Your task to perform on an android device: How much does a 3 bedroom apartment rent for in Austin? Image 0: 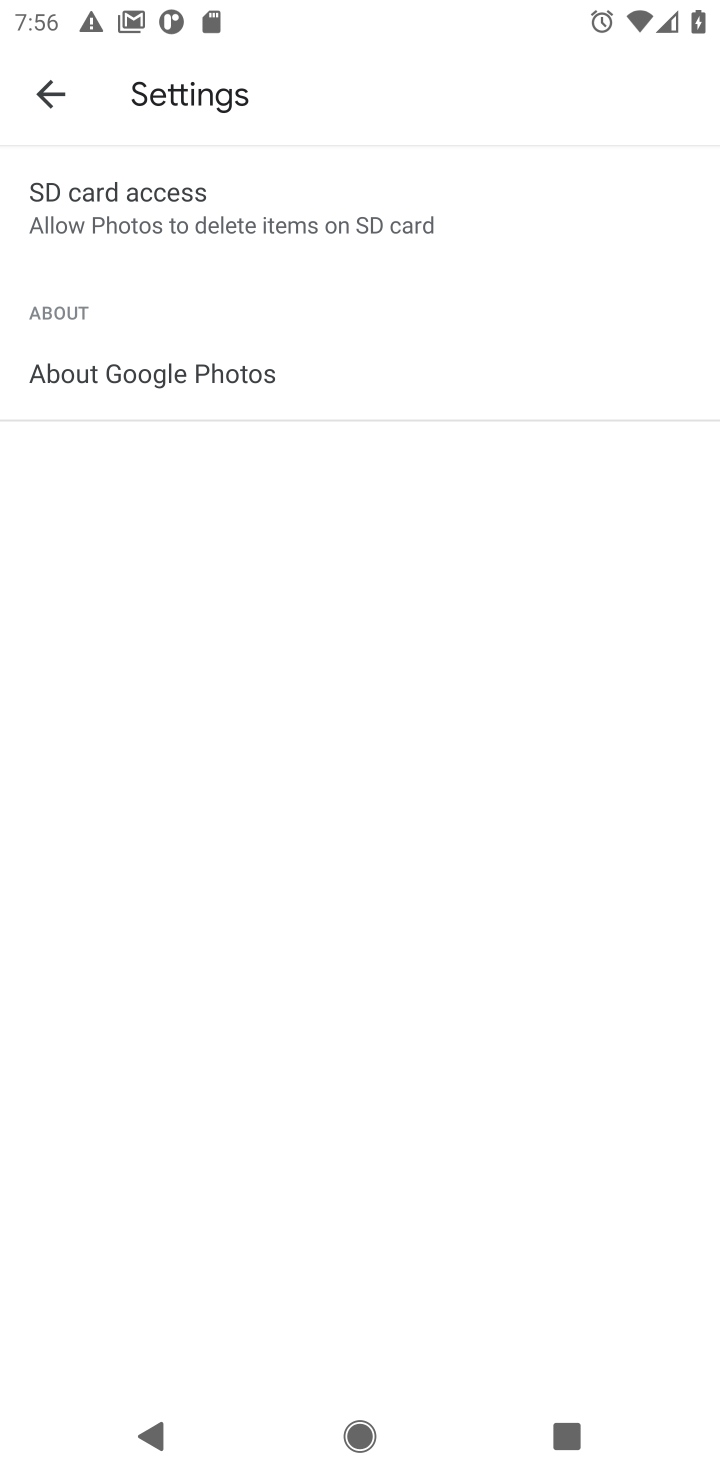
Step 0: press home button
Your task to perform on an android device: How much does a 3 bedroom apartment rent for in Austin? Image 1: 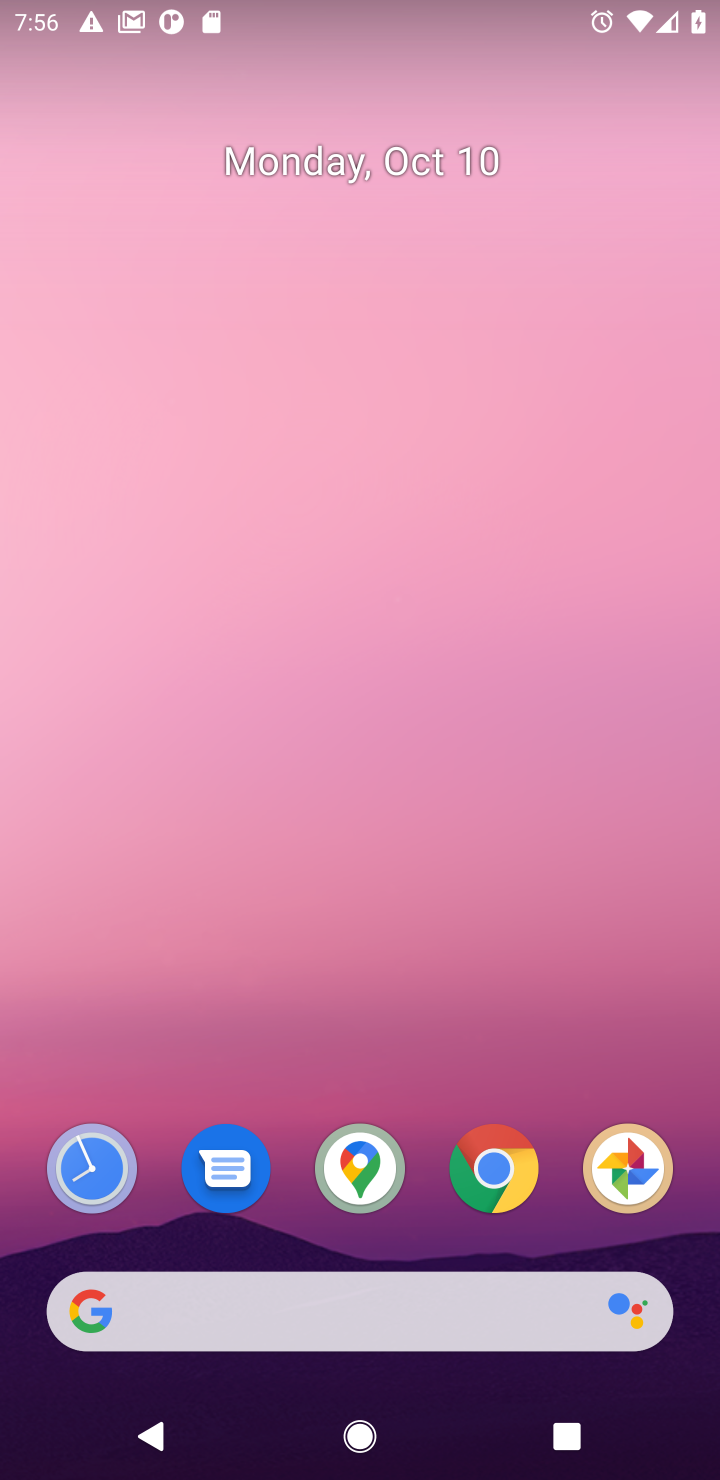
Step 1: click (492, 1177)
Your task to perform on an android device: How much does a 3 bedroom apartment rent for in Austin? Image 2: 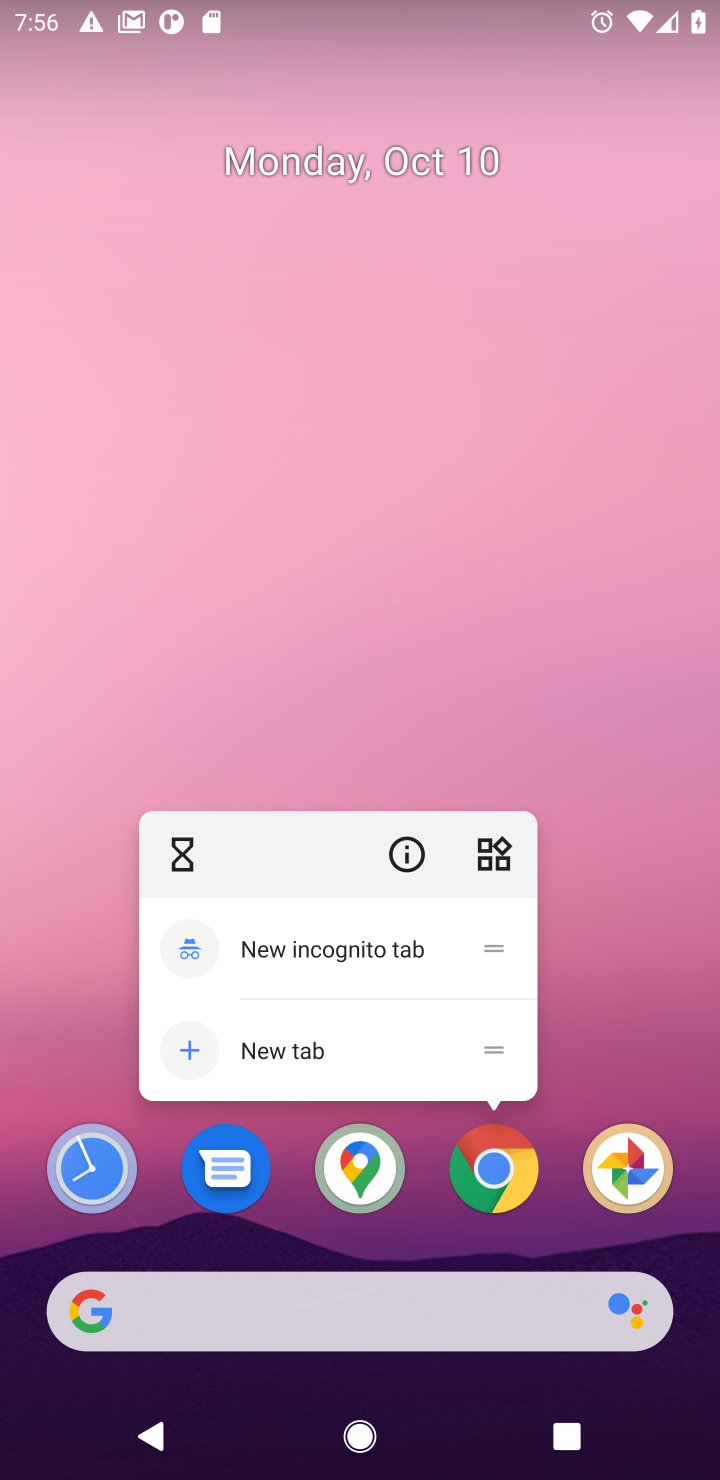
Step 2: click (492, 1177)
Your task to perform on an android device: How much does a 3 bedroom apartment rent for in Austin? Image 3: 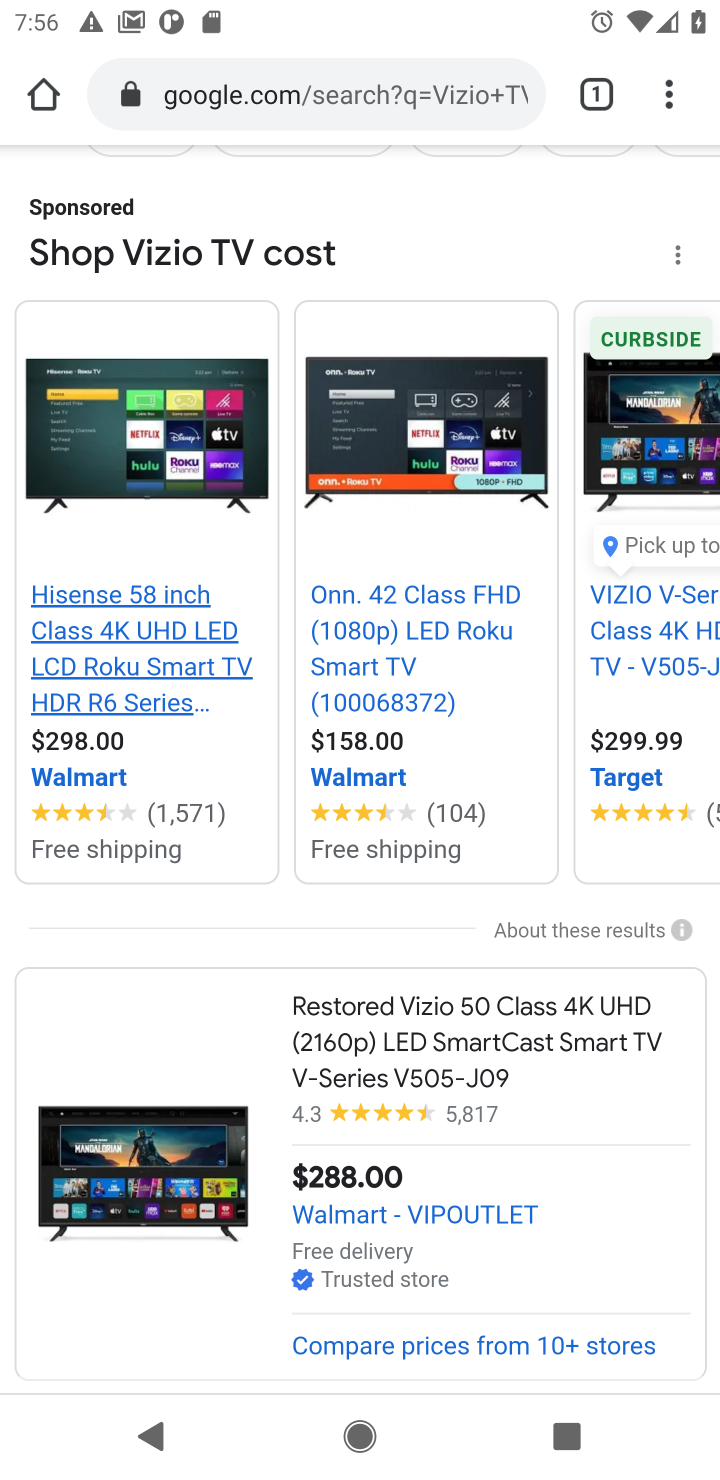
Step 3: click (326, 96)
Your task to perform on an android device: How much does a 3 bedroom apartment rent for in Austin? Image 4: 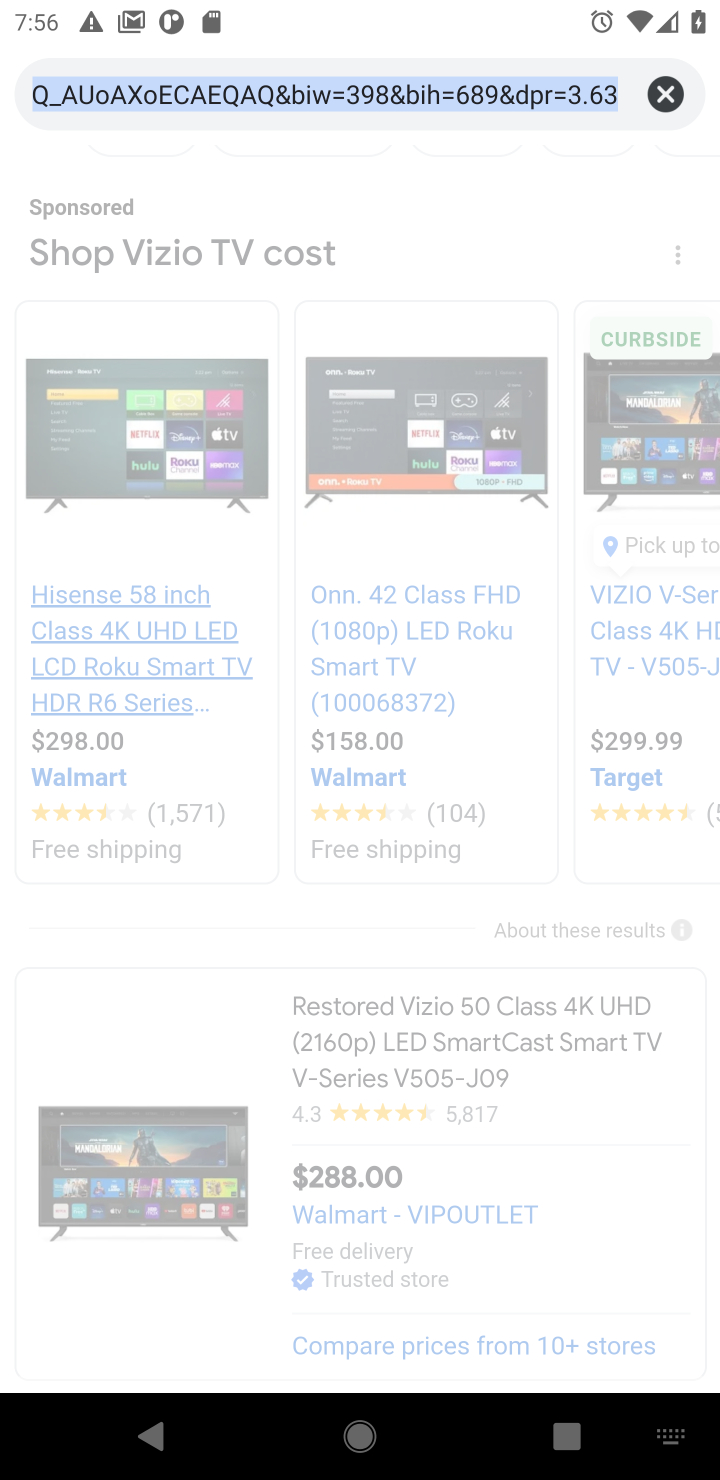
Step 4: click (652, 92)
Your task to perform on an android device: How much does a 3 bedroom apartment rent for in Austin? Image 5: 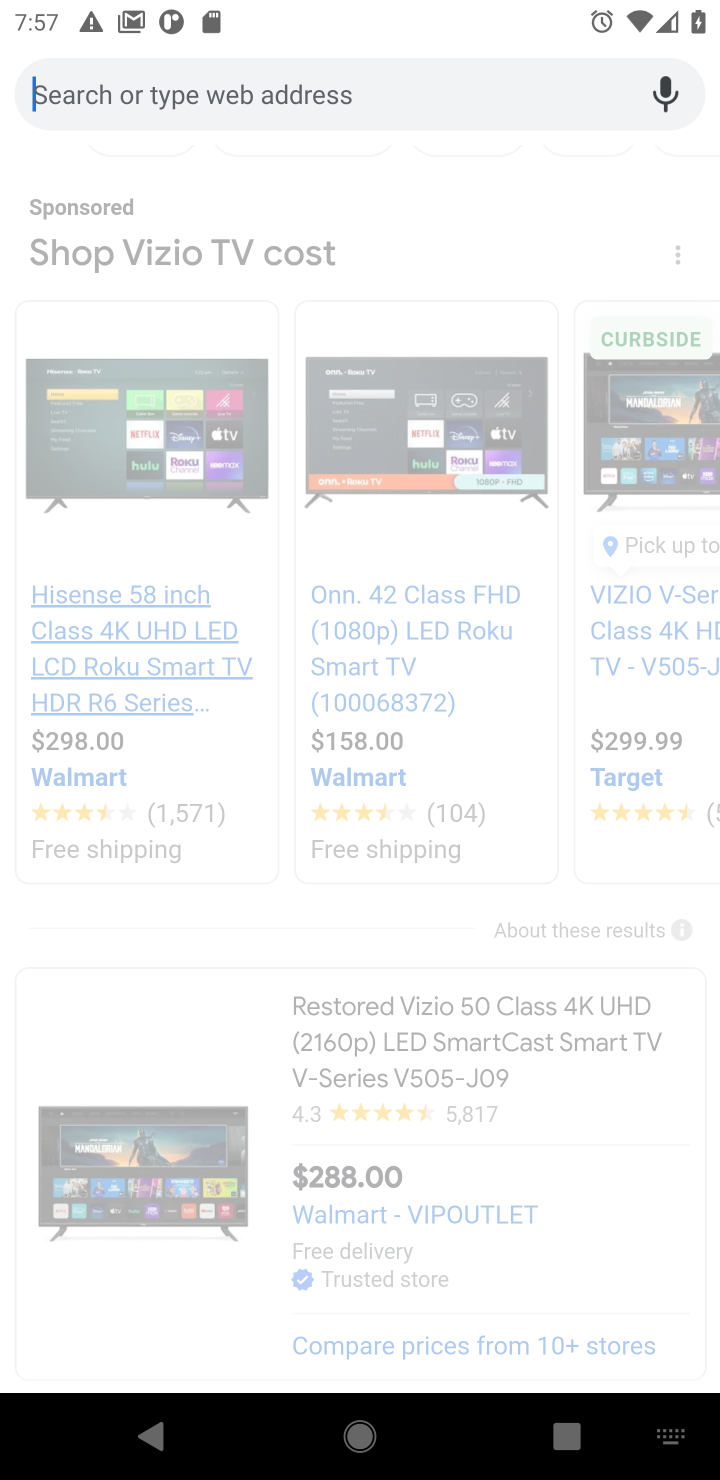
Step 5: type "rent for 3 bedroom apartment in austin"
Your task to perform on an android device: How much does a 3 bedroom apartment rent for in Austin? Image 6: 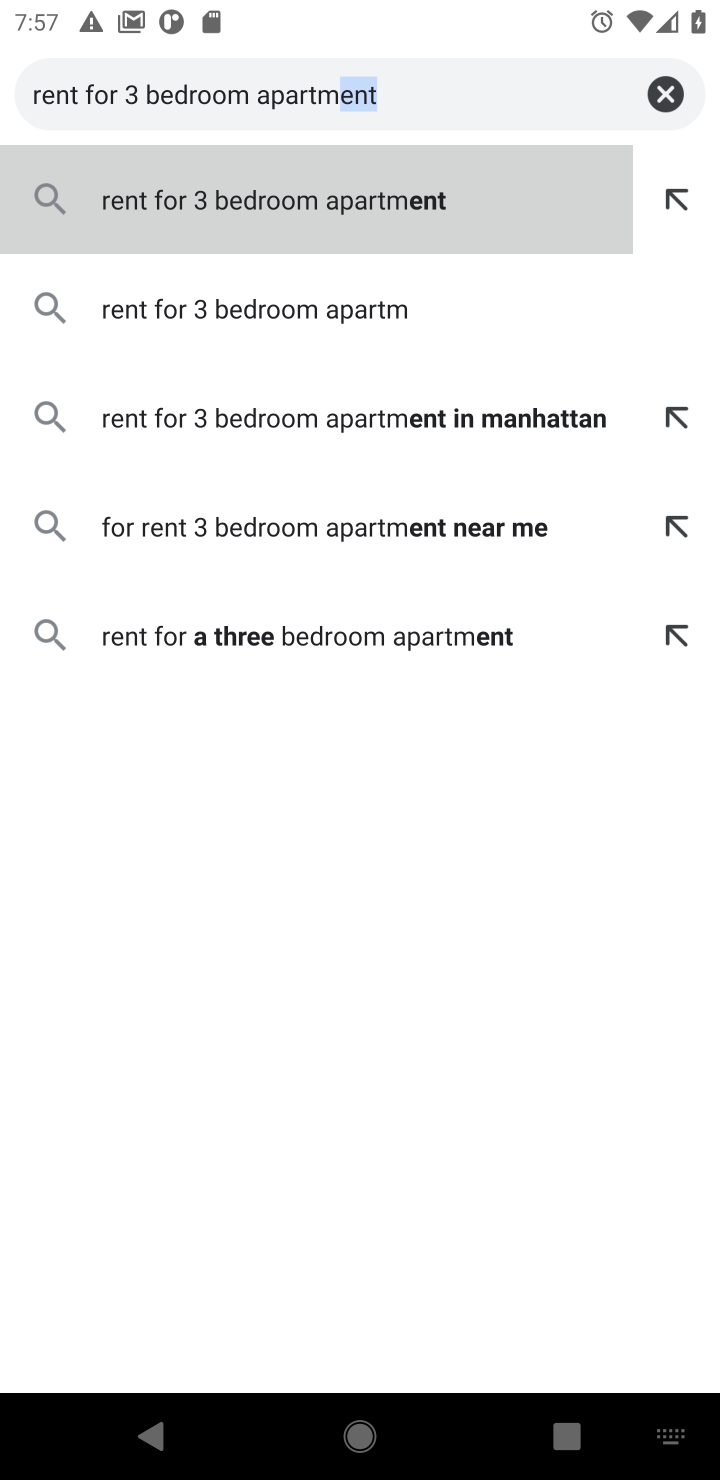
Step 6: click (300, 204)
Your task to perform on an android device: How much does a 3 bedroom apartment rent for in Austin? Image 7: 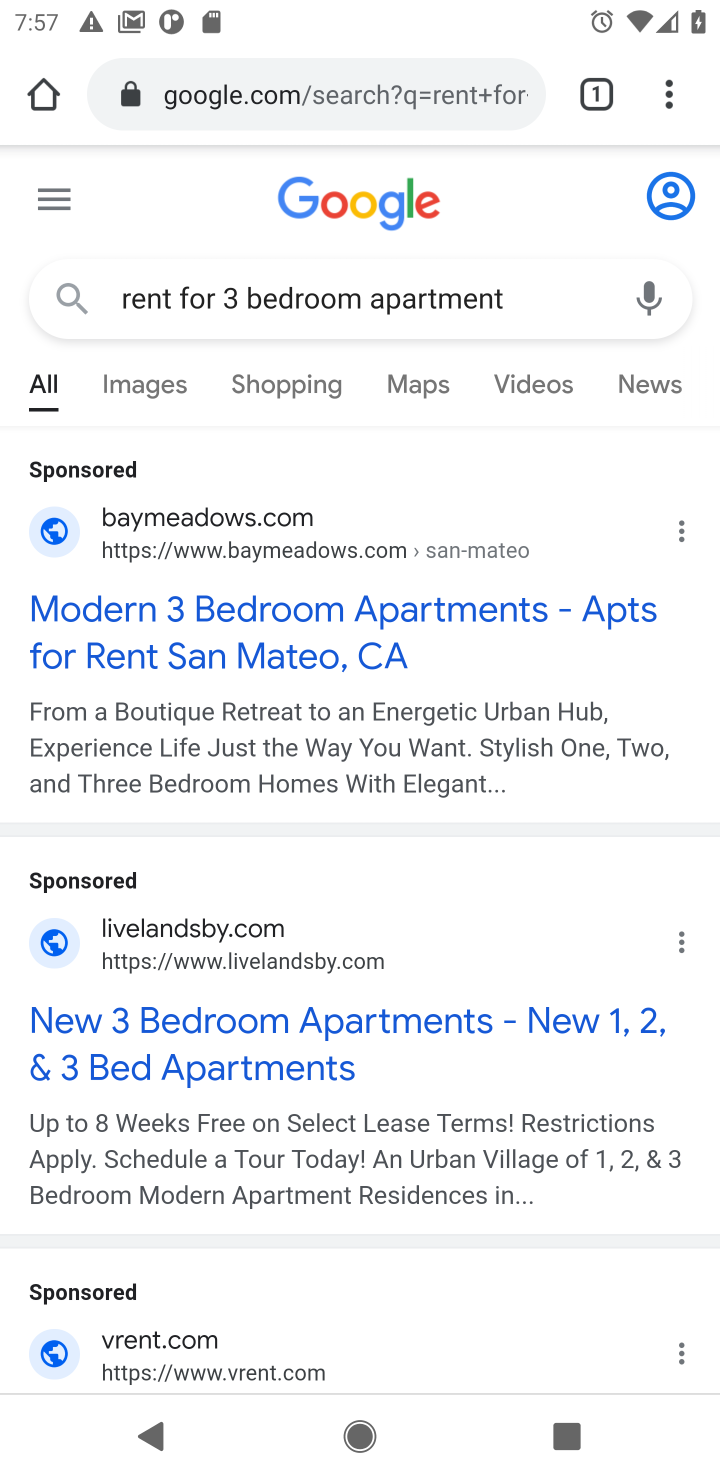
Step 7: click (204, 613)
Your task to perform on an android device: How much does a 3 bedroom apartment rent for in Austin? Image 8: 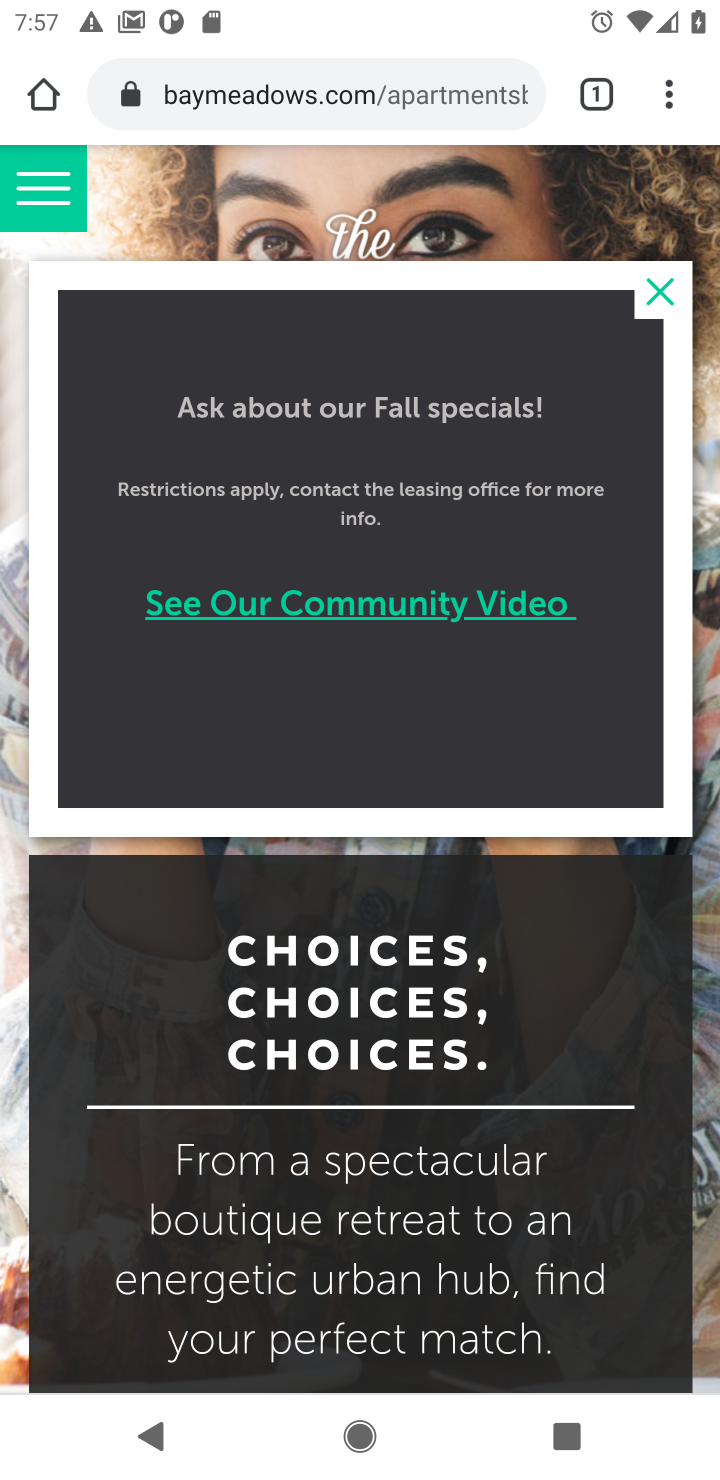
Step 8: press back button
Your task to perform on an android device: How much does a 3 bedroom apartment rent for in Austin? Image 9: 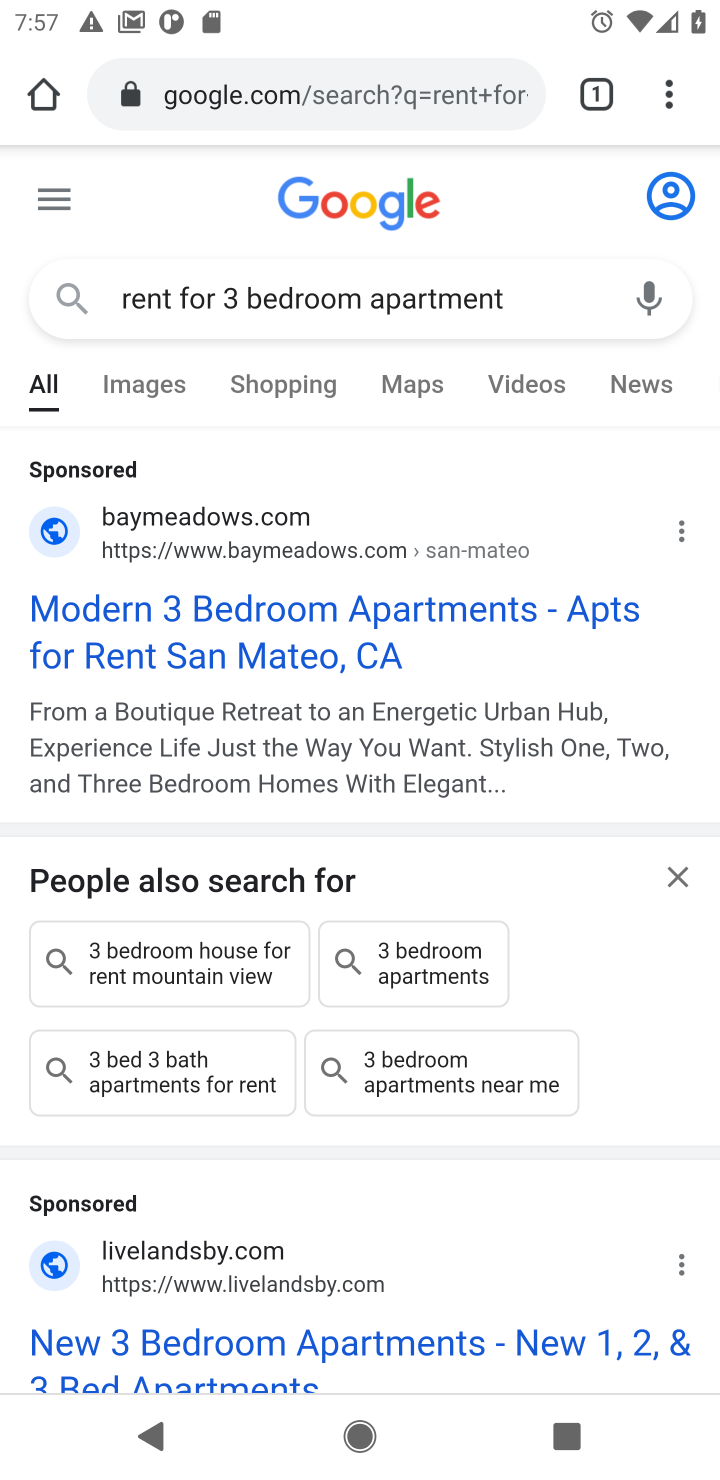
Step 9: click (278, 392)
Your task to perform on an android device: How much does a 3 bedroom apartment rent for in Austin? Image 10: 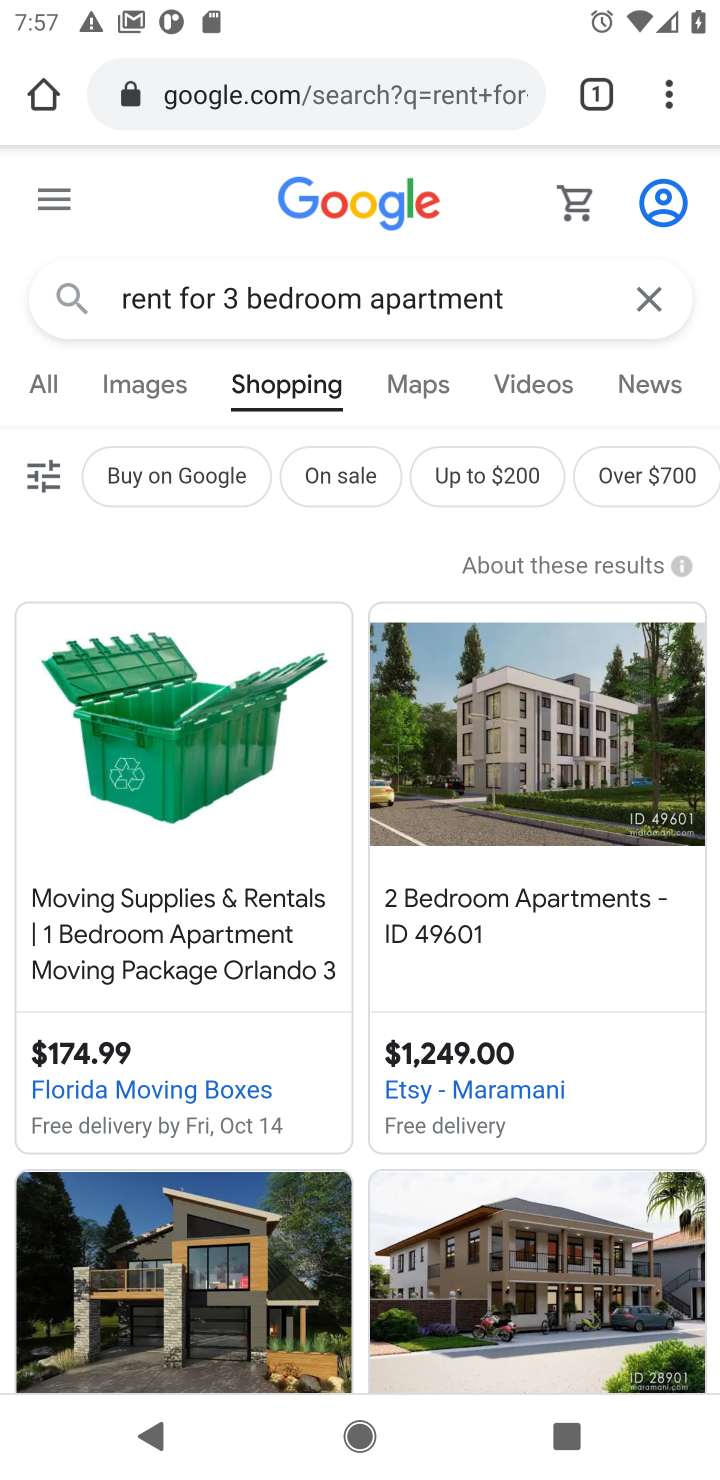
Step 10: drag from (239, 1180) to (254, 665)
Your task to perform on an android device: How much does a 3 bedroom apartment rent for in Austin? Image 11: 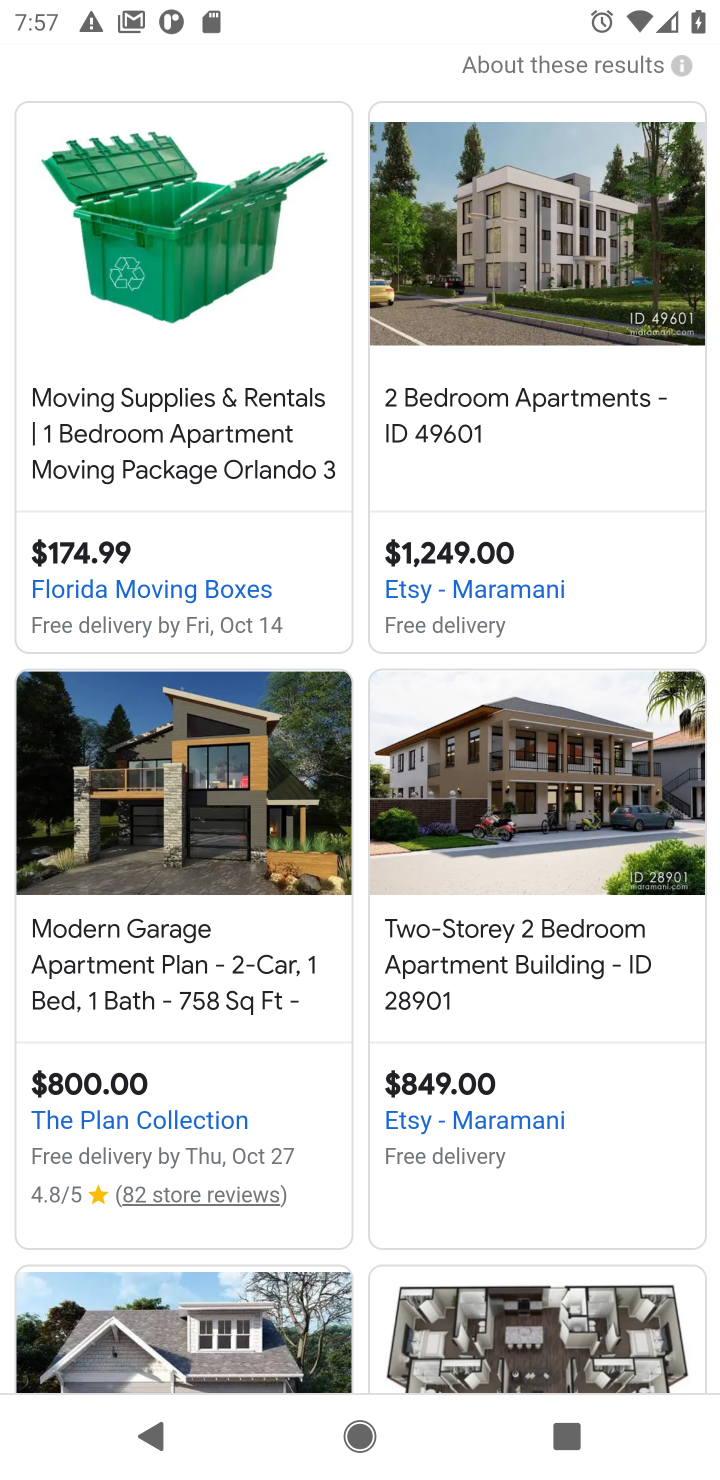
Step 11: drag from (200, 1112) to (182, 686)
Your task to perform on an android device: How much does a 3 bedroom apartment rent for in Austin? Image 12: 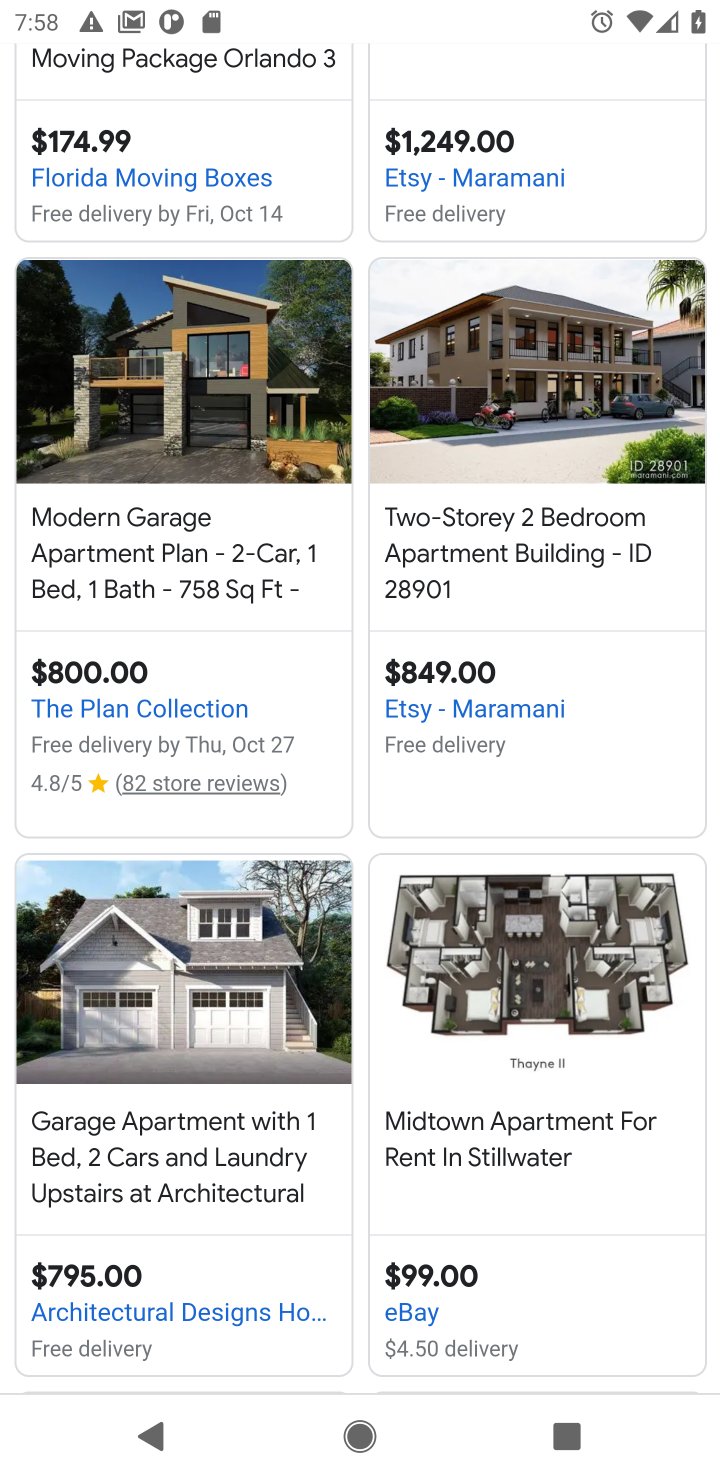
Step 12: drag from (196, 1116) to (220, 604)
Your task to perform on an android device: How much does a 3 bedroom apartment rent for in Austin? Image 13: 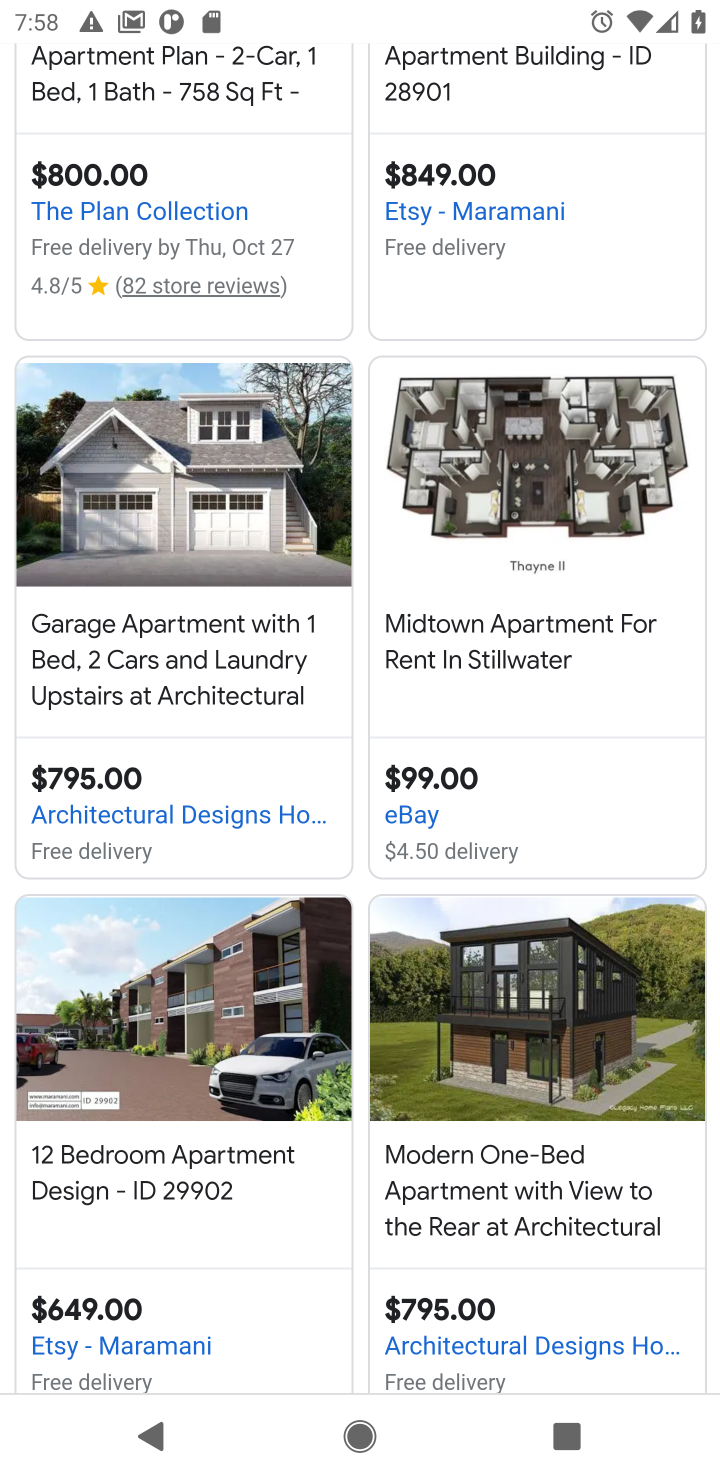
Step 13: drag from (153, 1171) to (169, 820)
Your task to perform on an android device: How much does a 3 bedroom apartment rent for in Austin? Image 14: 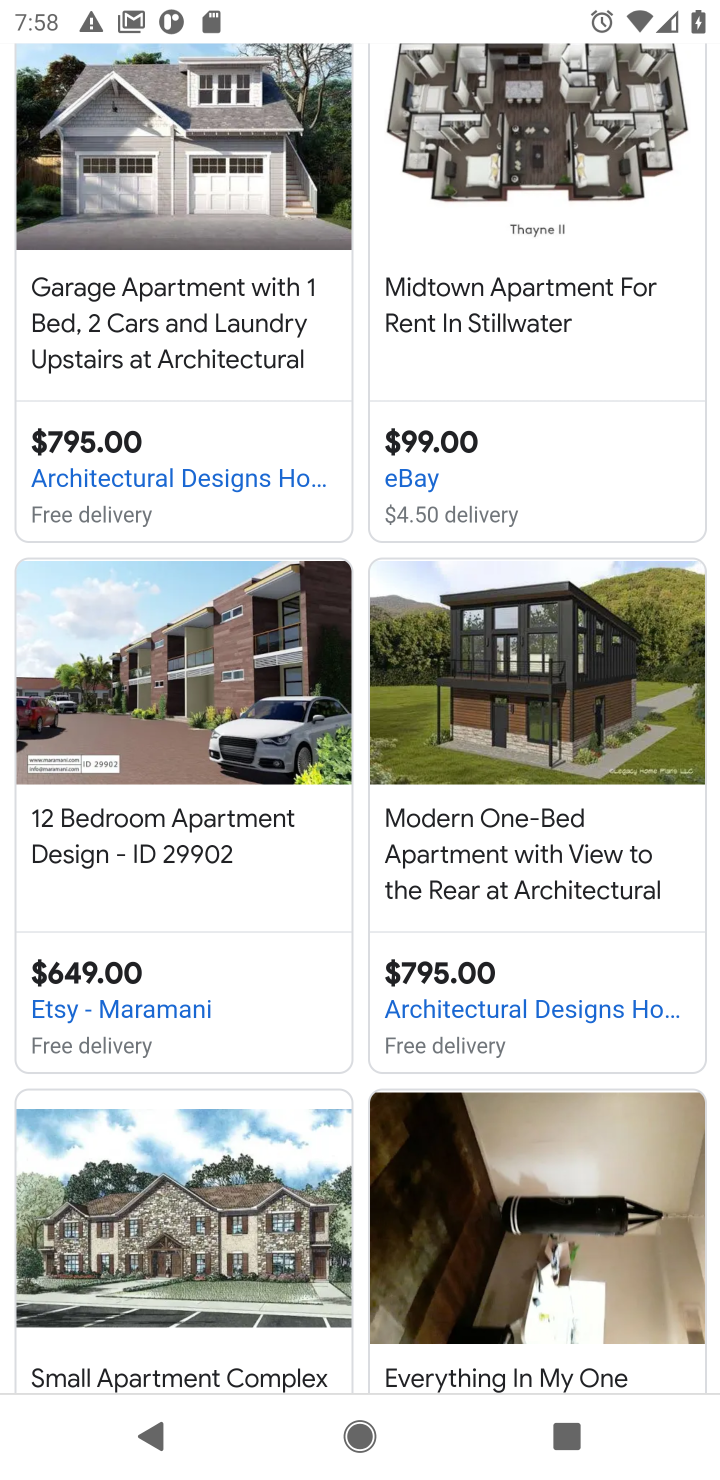
Step 14: drag from (166, 1048) to (174, 570)
Your task to perform on an android device: How much does a 3 bedroom apartment rent for in Austin? Image 15: 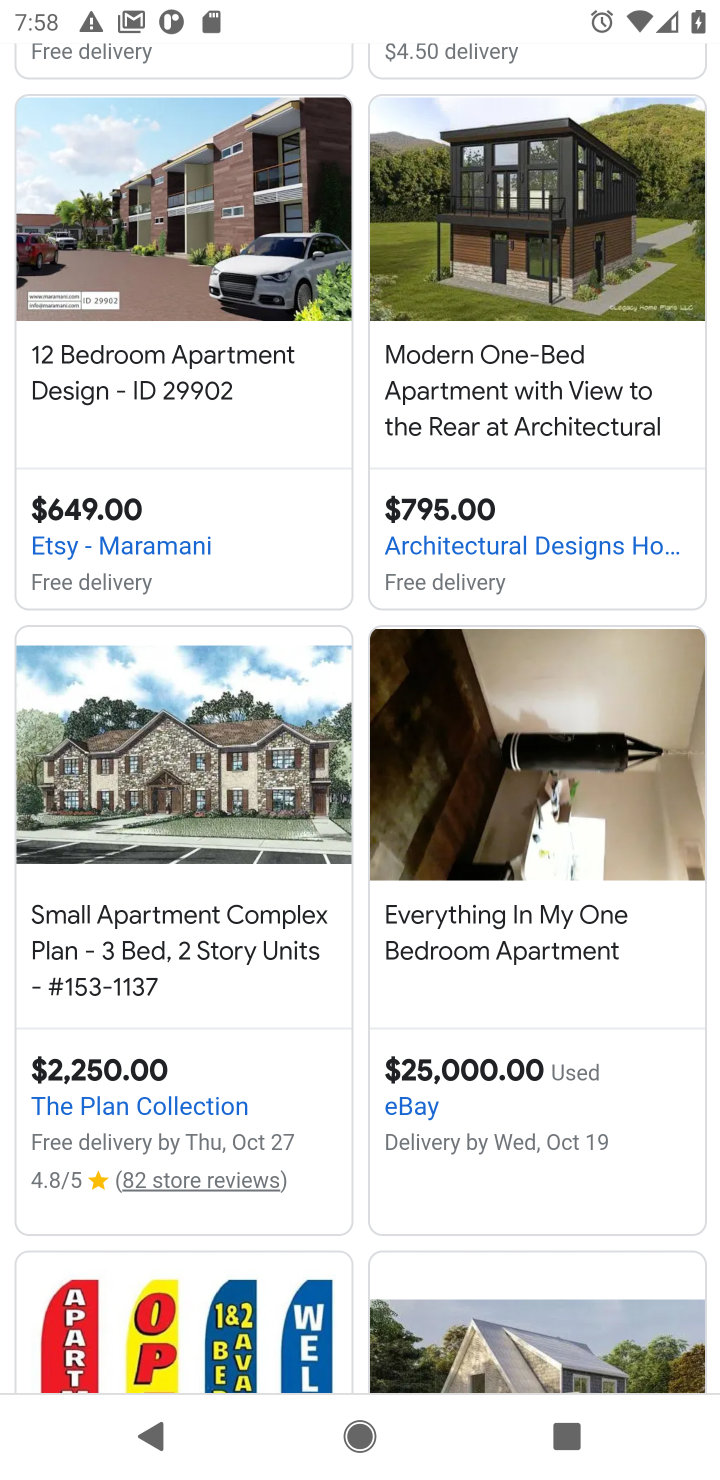
Step 15: click (176, 823)
Your task to perform on an android device: How much does a 3 bedroom apartment rent for in Austin? Image 16: 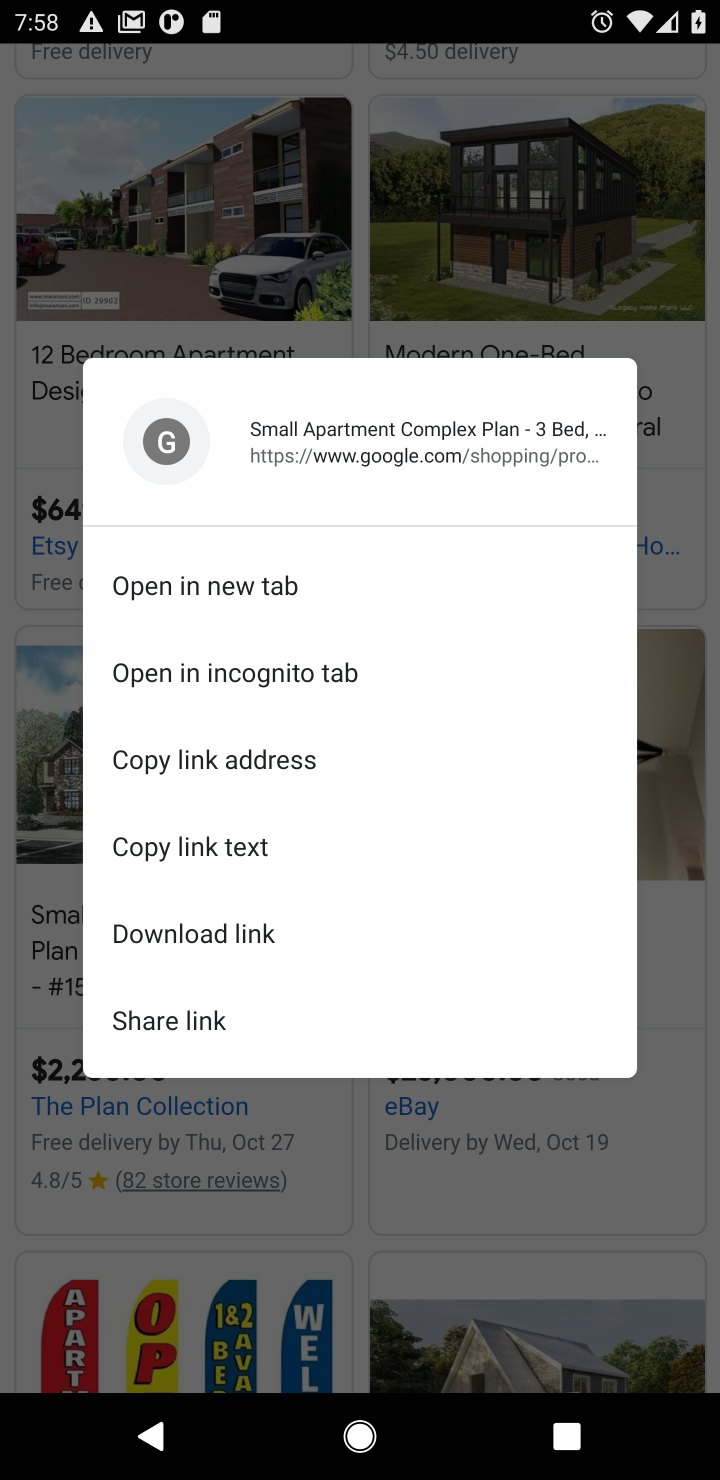
Step 16: click (39, 991)
Your task to perform on an android device: How much does a 3 bedroom apartment rent for in Austin? Image 17: 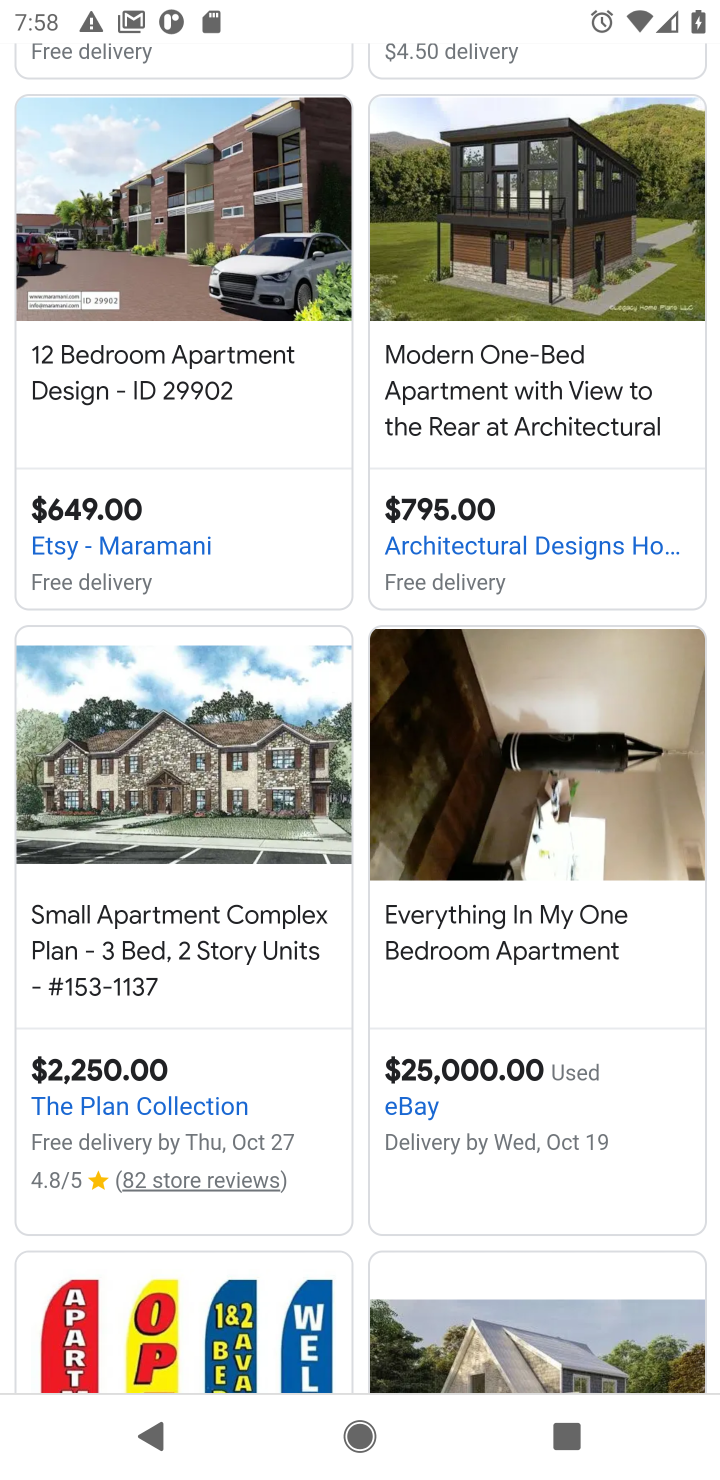
Step 17: click (163, 983)
Your task to perform on an android device: How much does a 3 bedroom apartment rent for in Austin? Image 18: 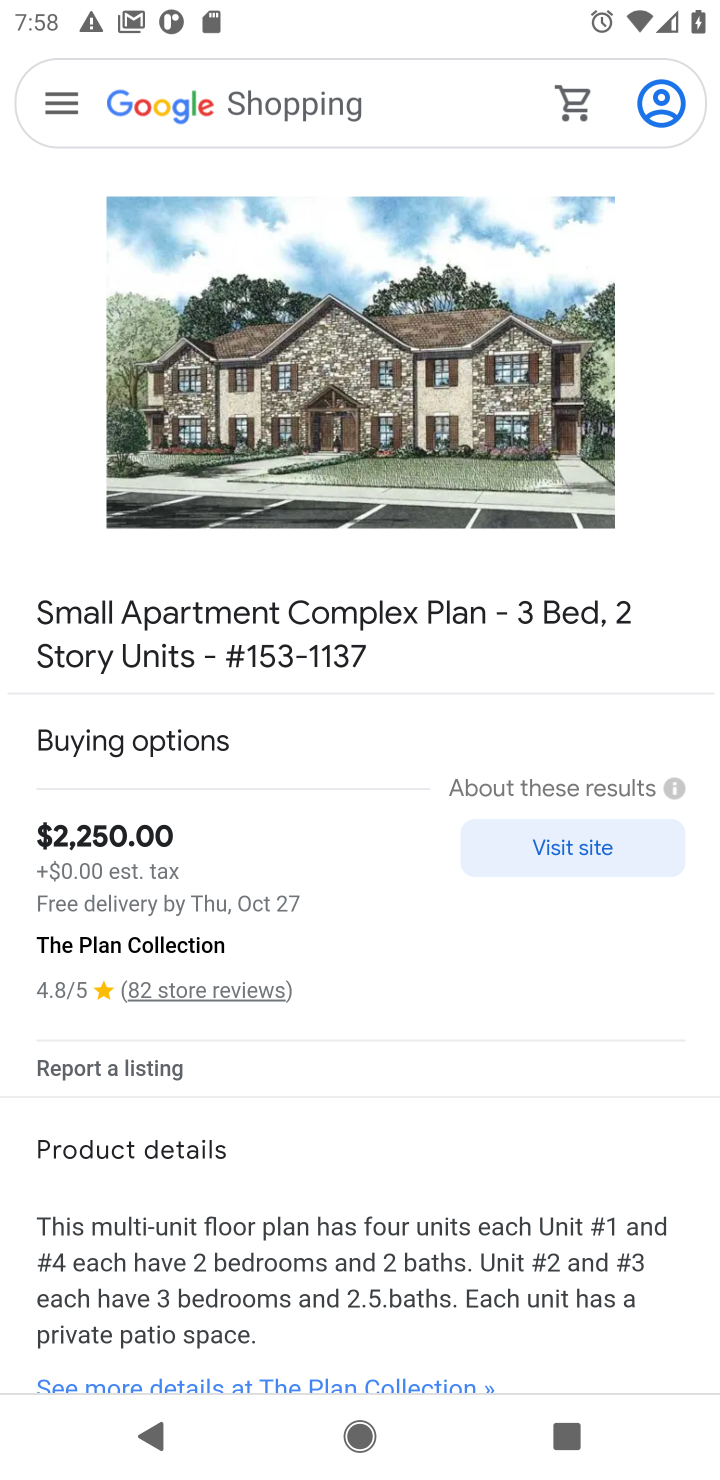
Step 18: task complete